Your task to perform on an android device: delete a single message in the gmail app Image 0: 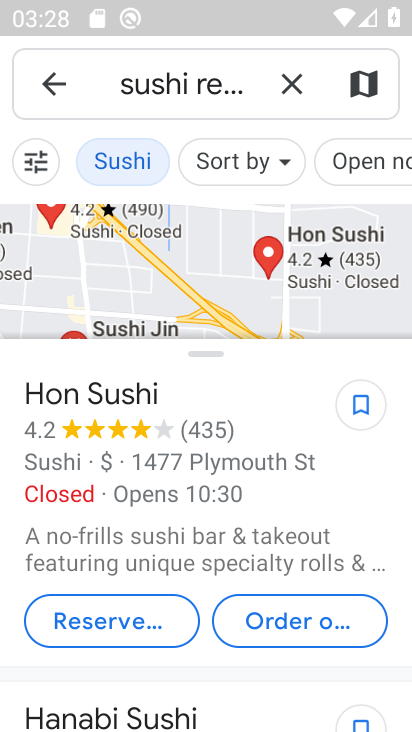
Step 0: press home button
Your task to perform on an android device: delete a single message in the gmail app Image 1: 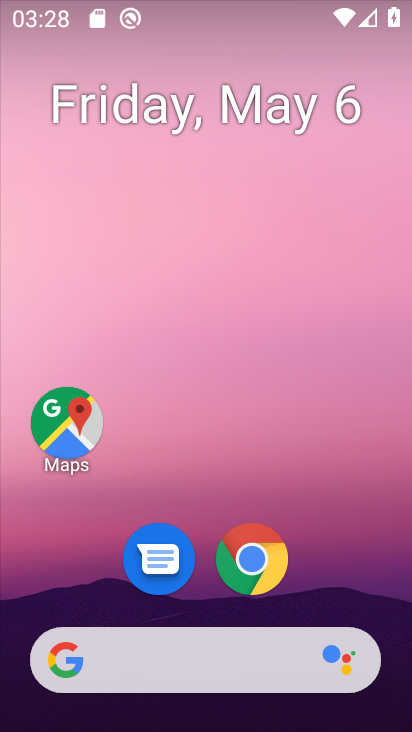
Step 1: drag from (313, 418) to (345, 103)
Your task to perform on an android device: delete a single message in the gmail app Image 2: 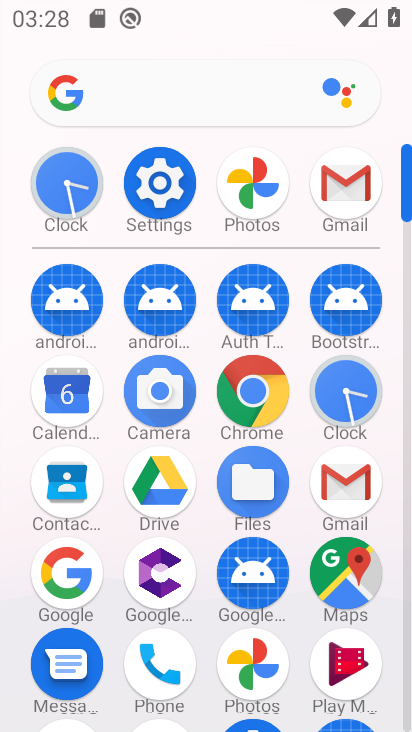
Step 2: click (331, 494)
Your task to perform on an android device: delete a single message in the gmail app Image 3: 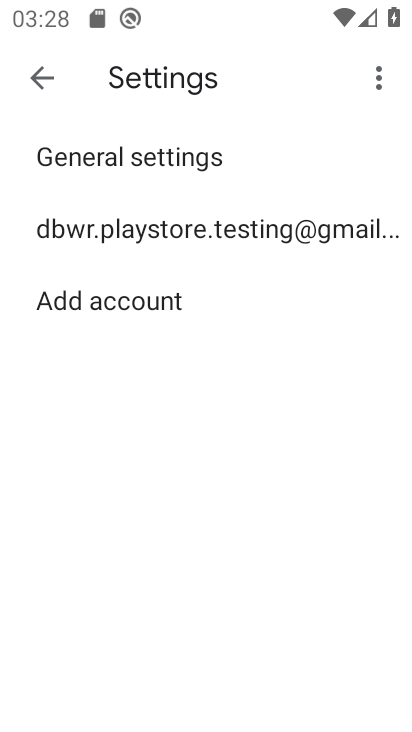
Step 3: press back button
Your task to perform on an android device: delete a single message in the gmail app Image 4: 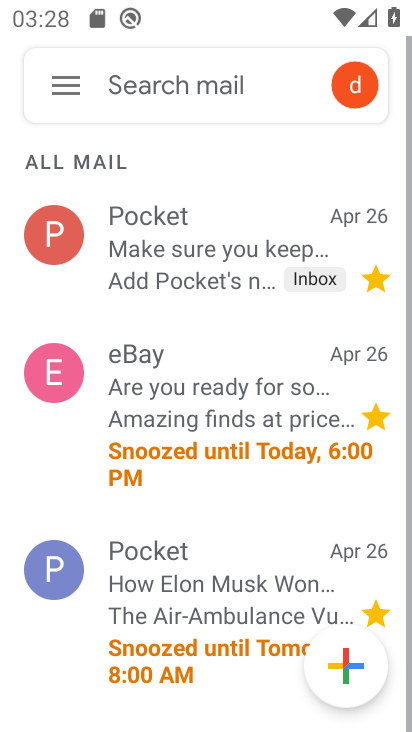
Step 4: click (272, 282)
Your task to perform on an android device: delete a single message in the gmail app Image 5: 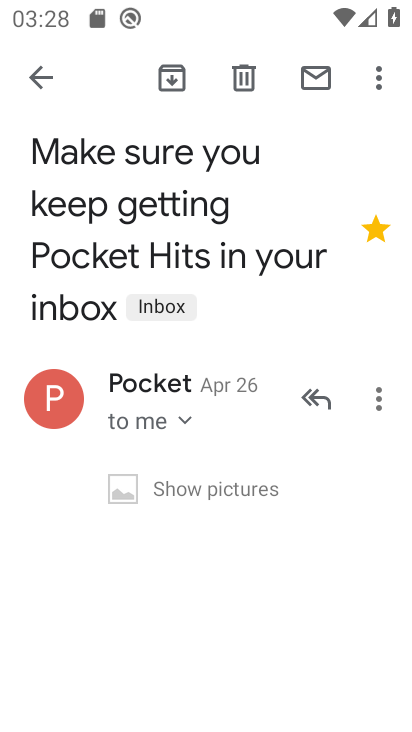
Step 5: click (246, 70)
Your task to perform on an android device: delete a single message in the gmail app Image 6: 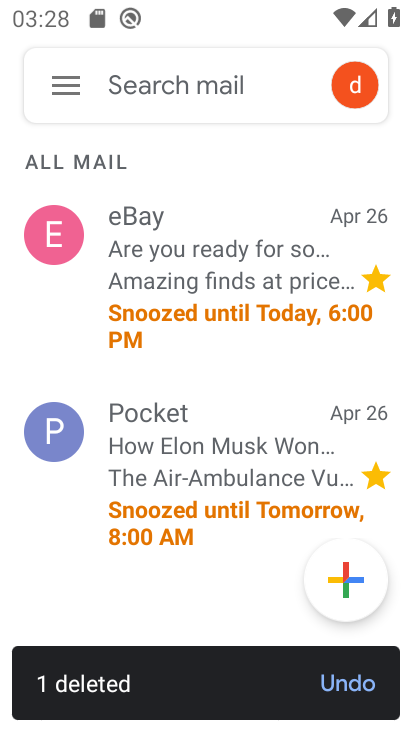
Step 6: task complete